Your task to perform on an android device: install app "Facebook Messenger" Image 0: 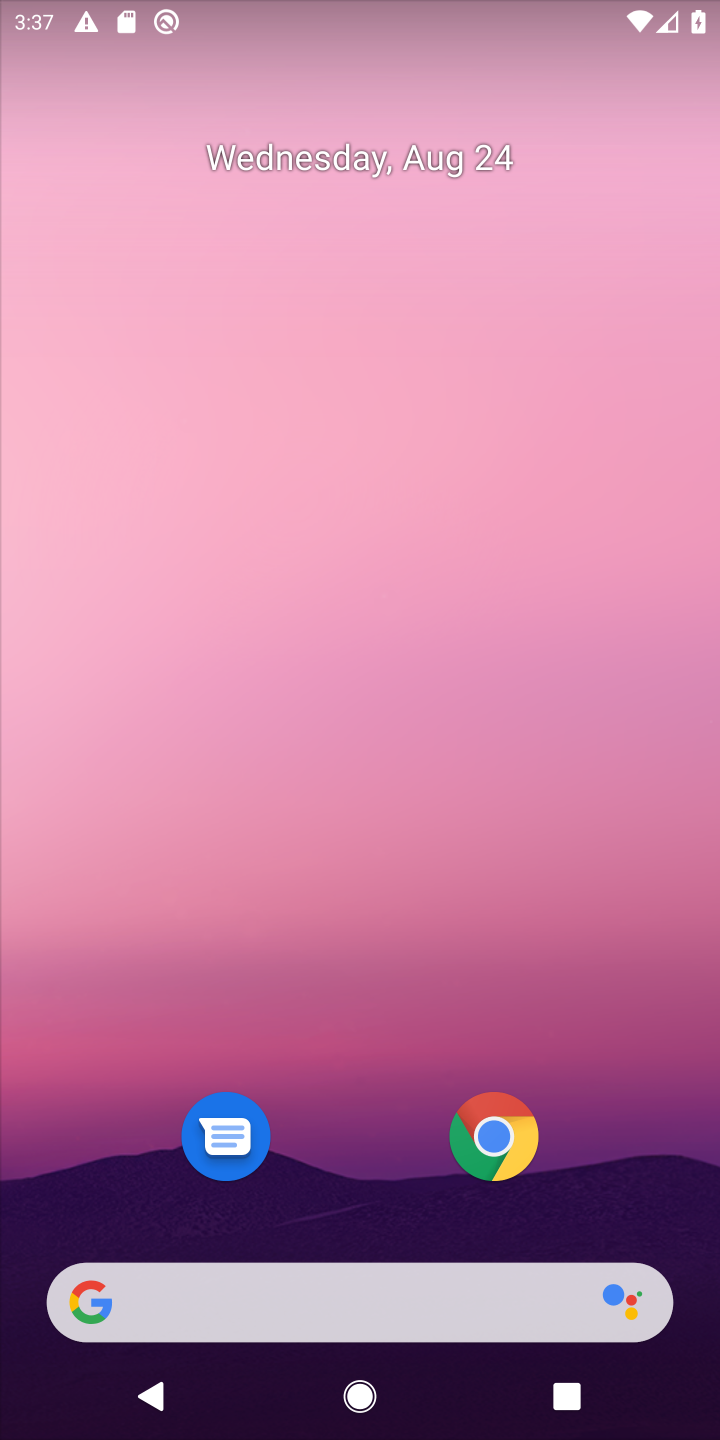
Step 0: press home button
Your task to perform on an android device: install app "Facebook Messenger" Image 1: 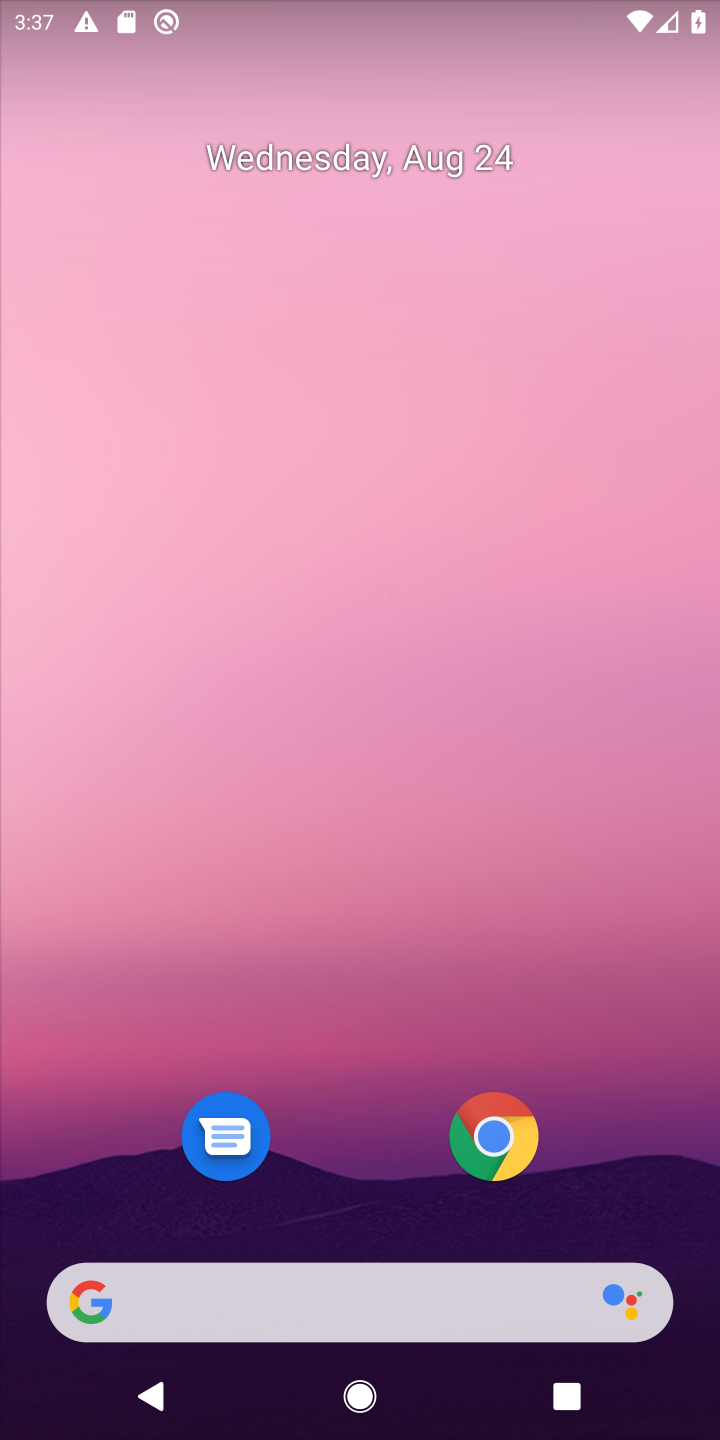
Step 1: press home button
Your task to perform on an android device: install app "Facebook Messenger" Image 2: 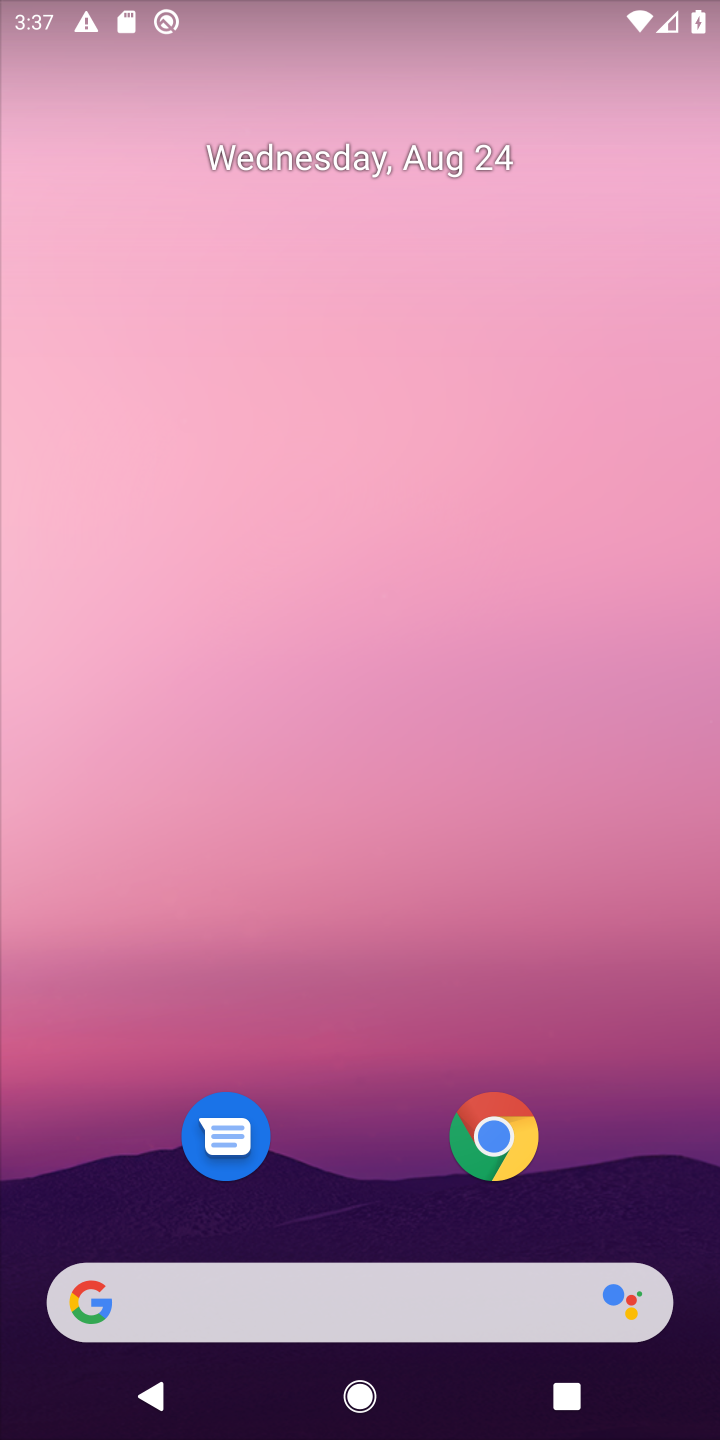
Step 2: drag from (348, 1110) to (348, 239)
Your task to perform on an android device: install app "Facebook Messenger" Image 3: 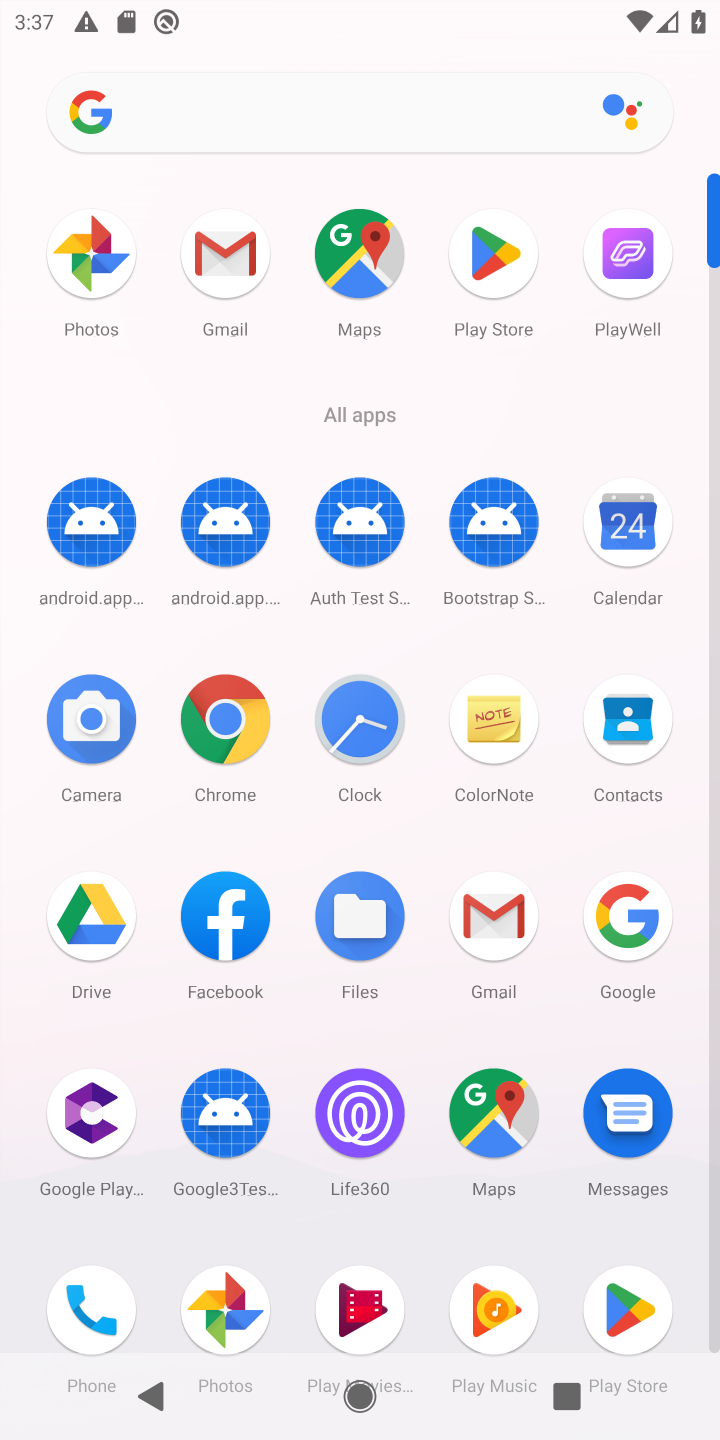
Step 3: click (488, 268)
Your task to perform on an android device: install app "Facebook Messenger" Image 4: 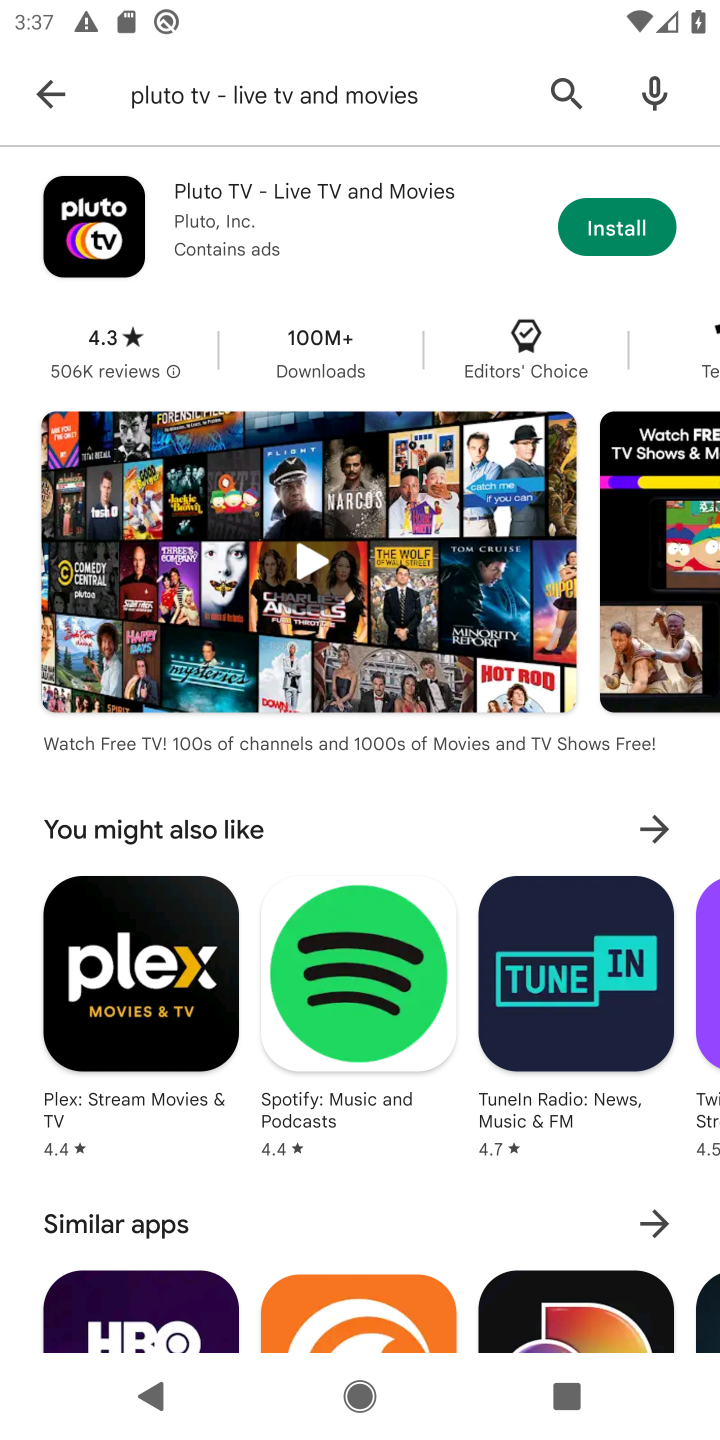
Step 4: click (636, 231)
Your task to perform on an android device: install app "Facebook Messenger" Image 5: 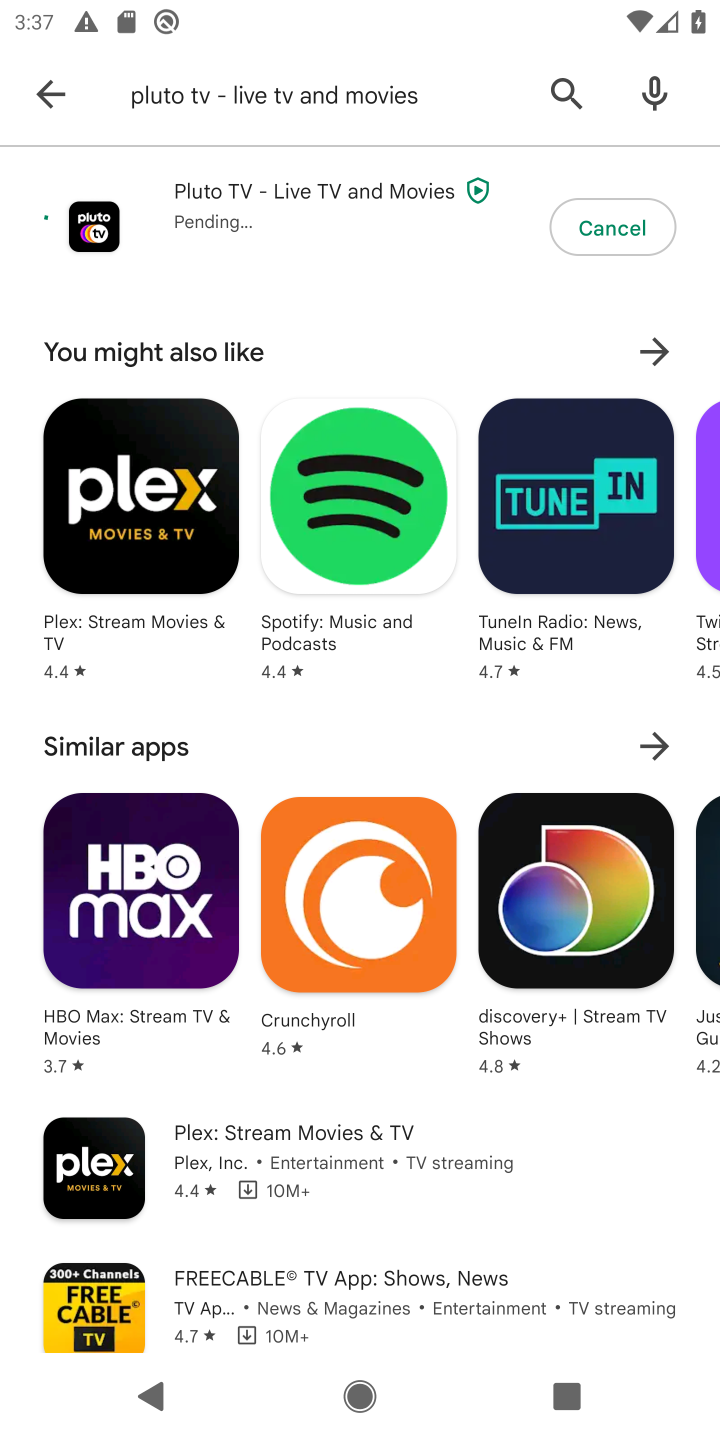
Step 5: click (654, 218)
Your task to perform on an android device: install app "Facebook Messenger" Image 6: 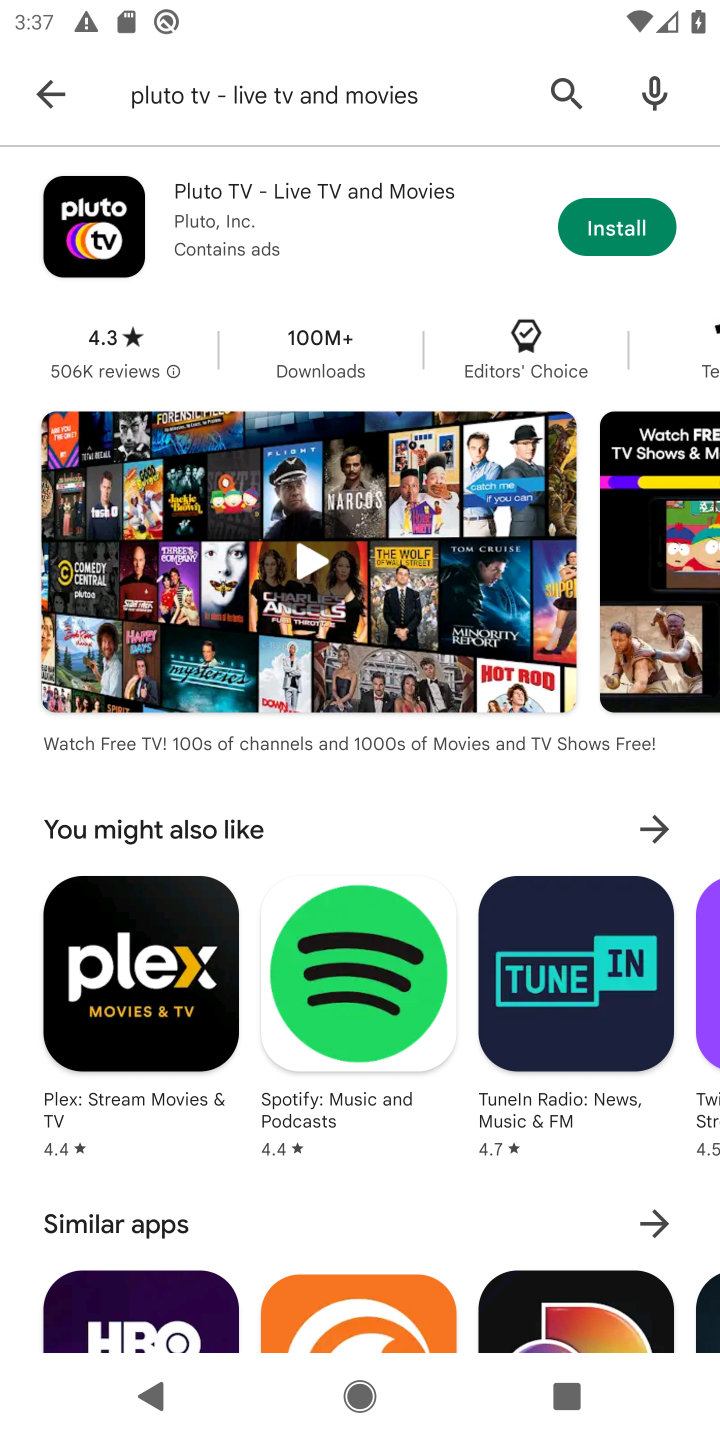
Step 6: click (38, 89)
Your task to perform on an android device: install app "Facebook Messenger" Image 7: 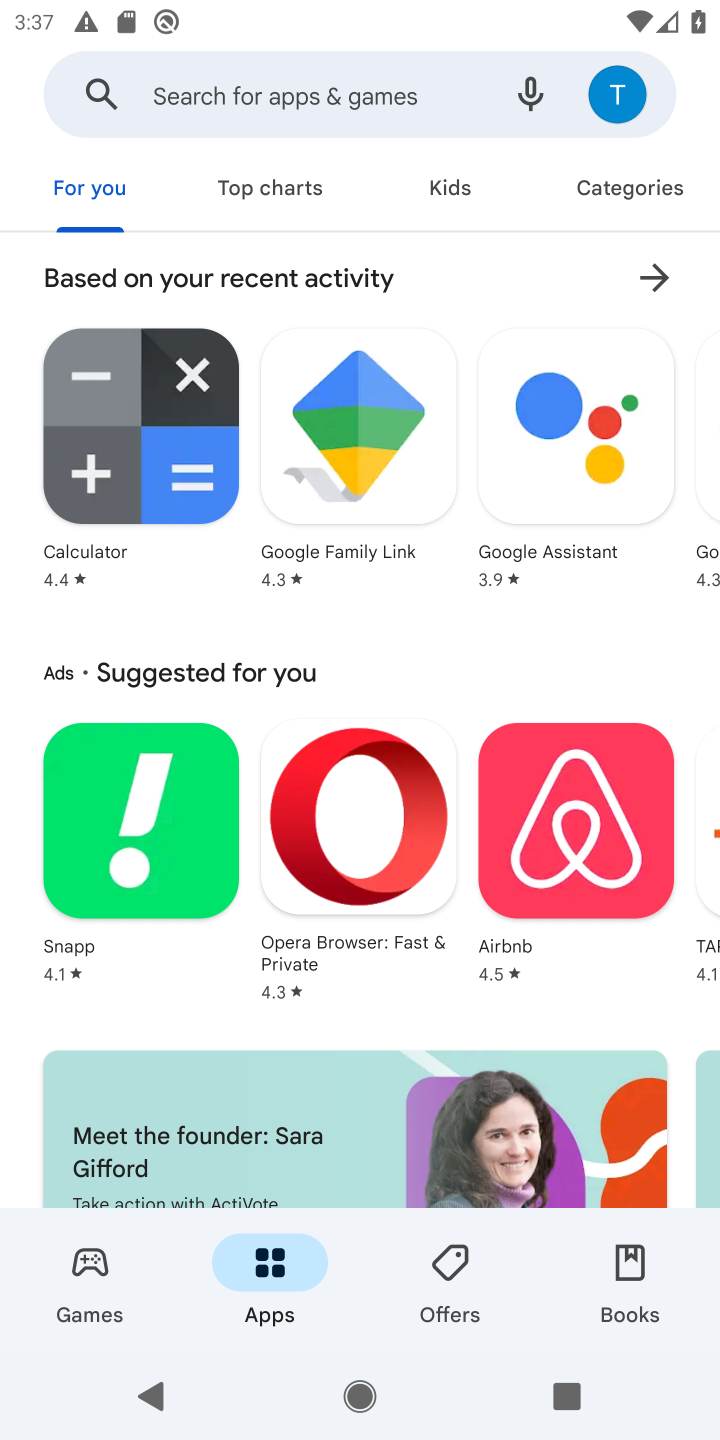
Step 7: click (310, 74)
Your task to perform on an android device: install app "Facebook Messenger" Image 8: 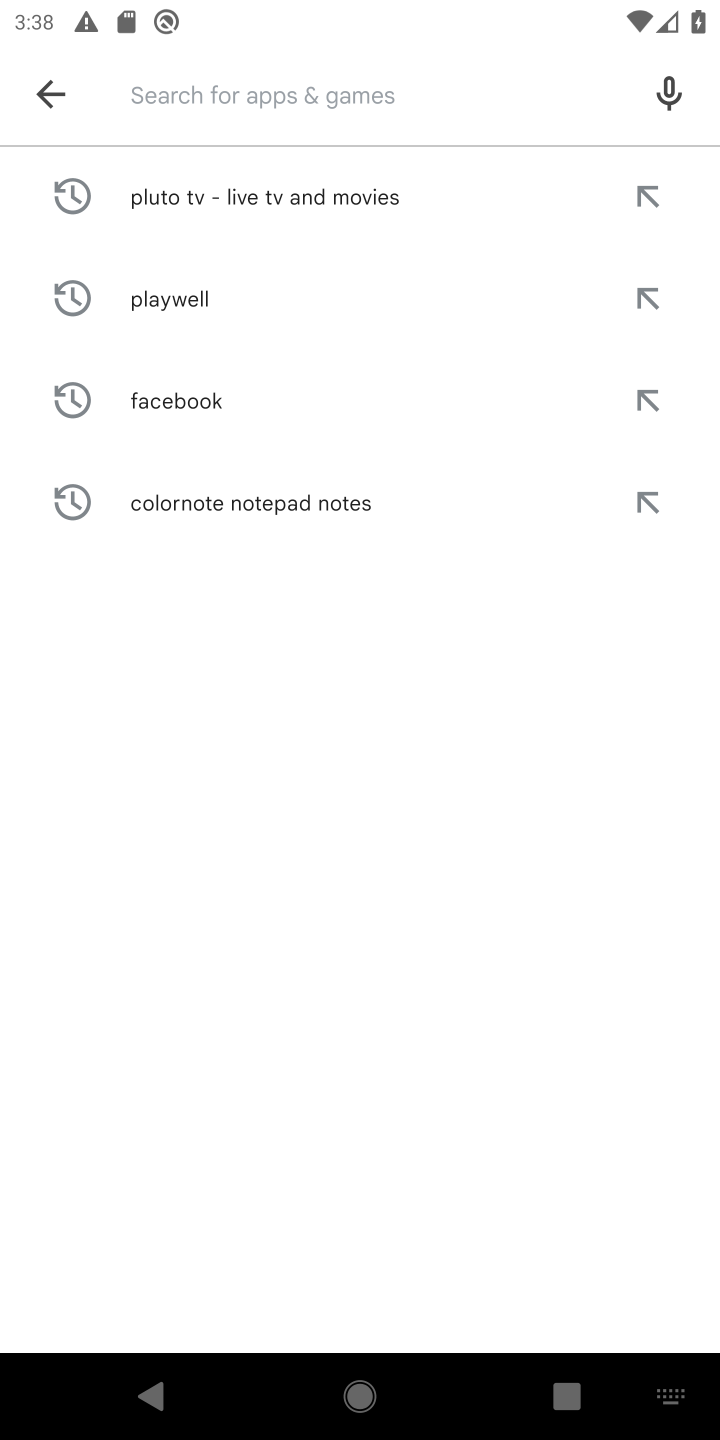
Step 8: type "Facebook Messenger"
Your task to perform on an android device: install app "Facebook Messenger" Image 9: 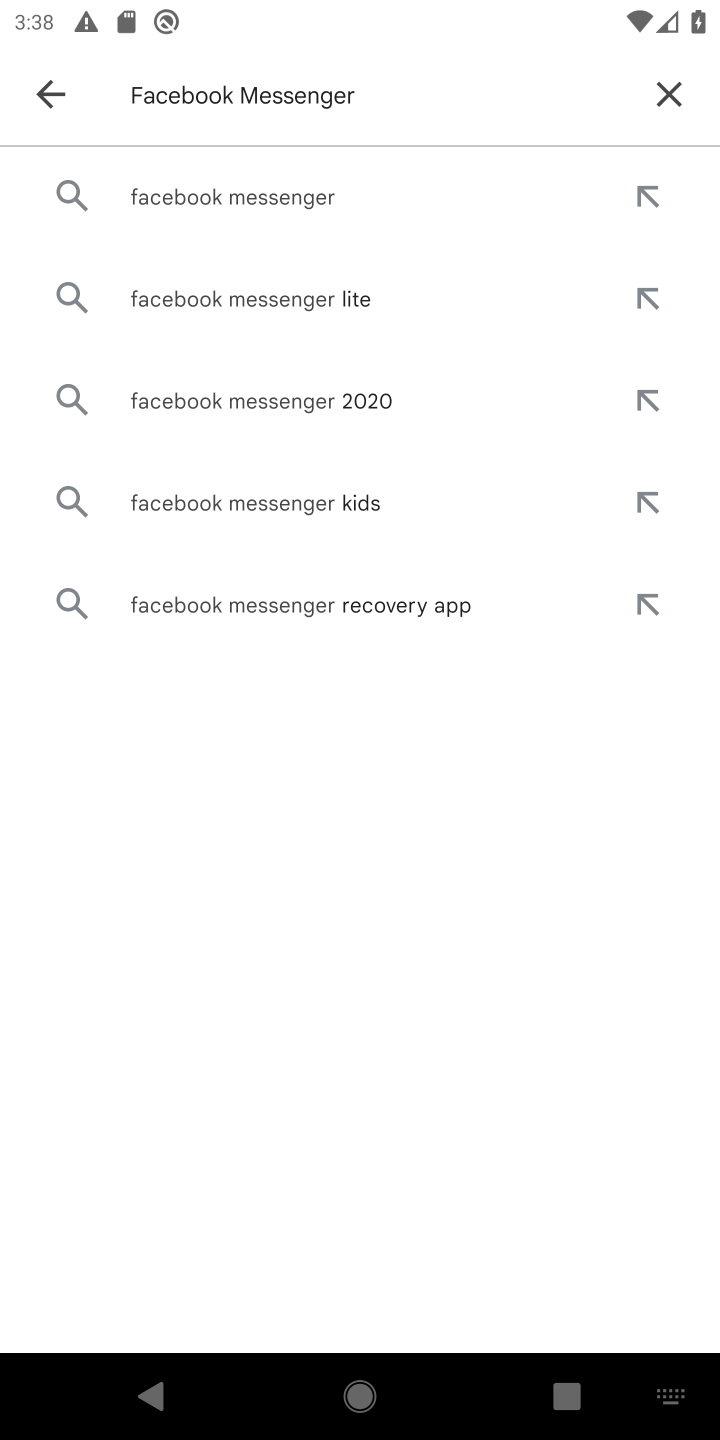
Step 9: click (251, 190)
Your task to perform on an android device: install app "Facebook Messenger" Image 10: 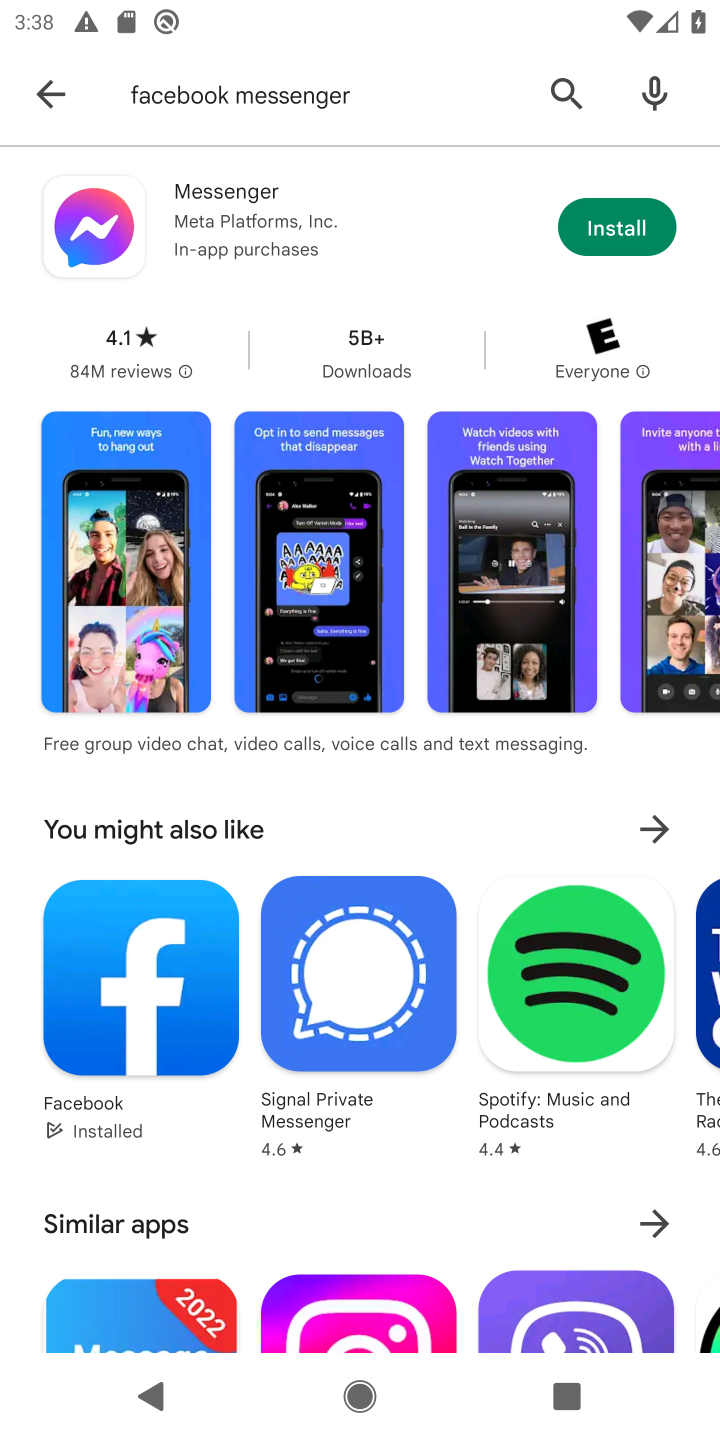
Step 10: click (604, 223)
Your task to perform on an android device: install app "Facebook Messenger" Image 11: 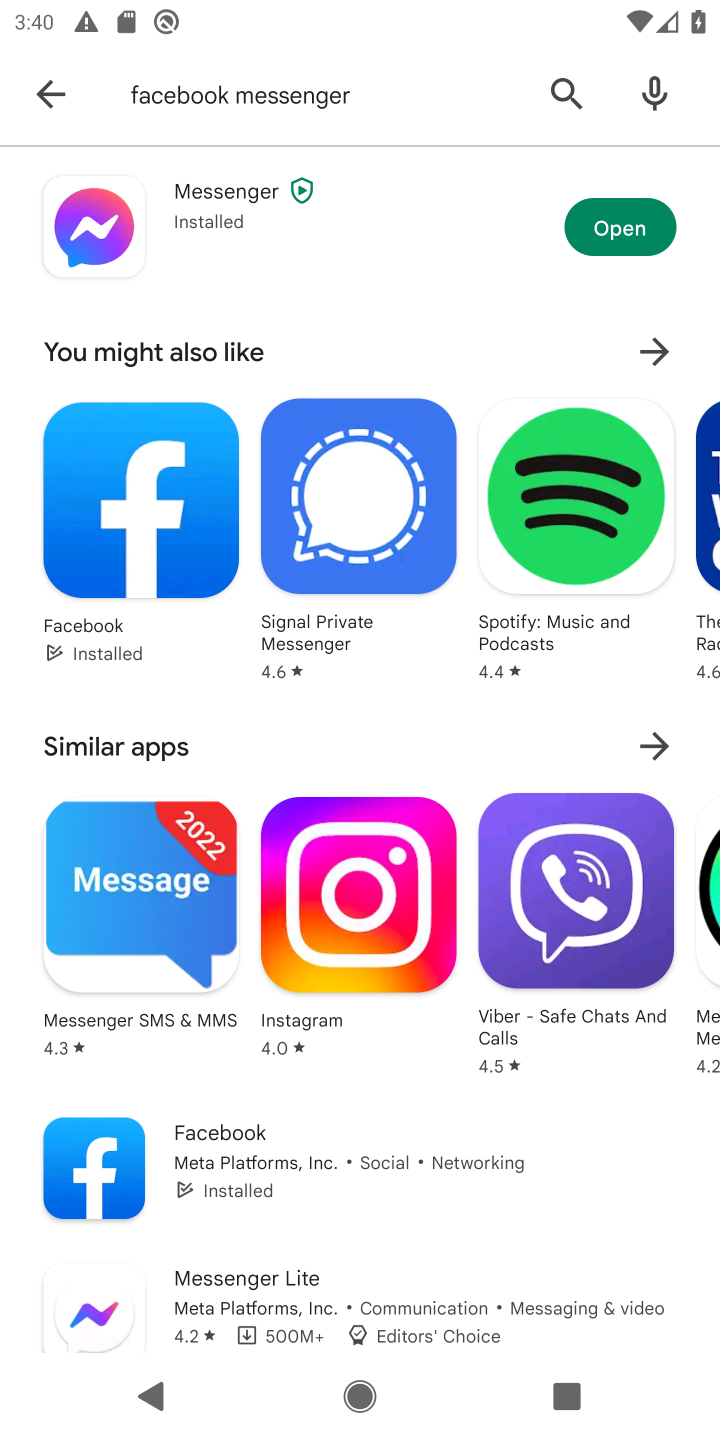
Step 11: click (617, 232)
Your task to perform on an android device: install app "Facebook Messenger" Image 12: 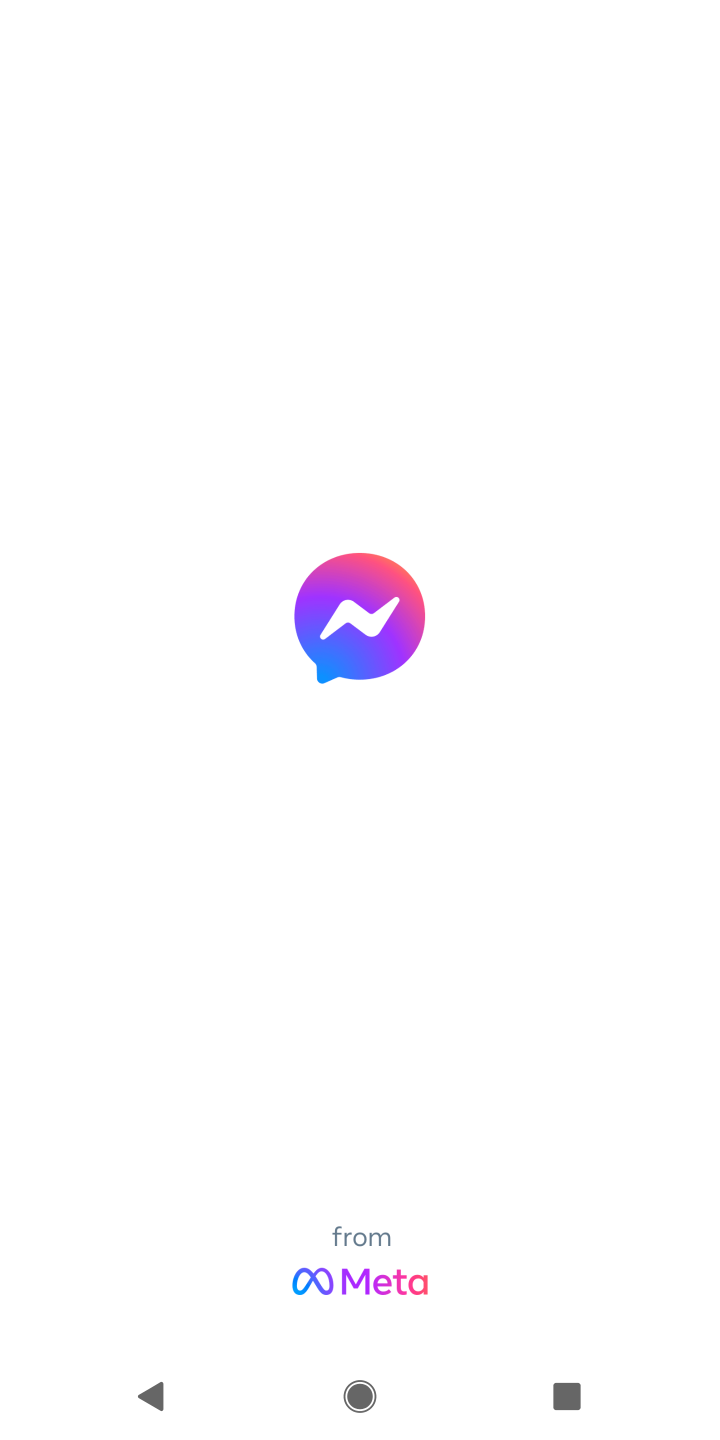
Step 12: task complete